Your task to perform on an android device: Open settings on Google Maps Image 0: 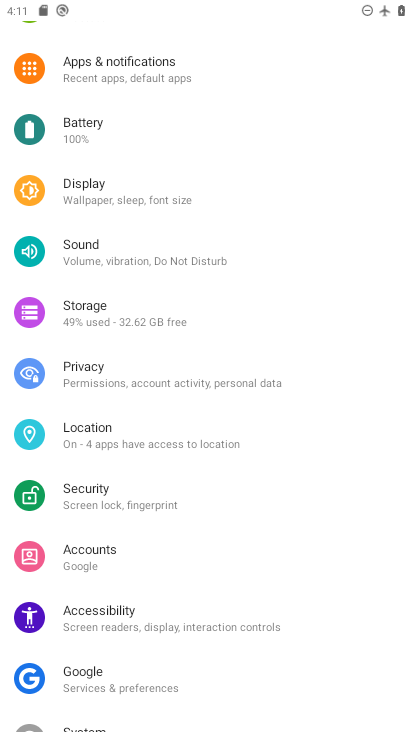
Step 0: press home button
Your task to perform on an android device: Open settings on Google Maps Image 1: 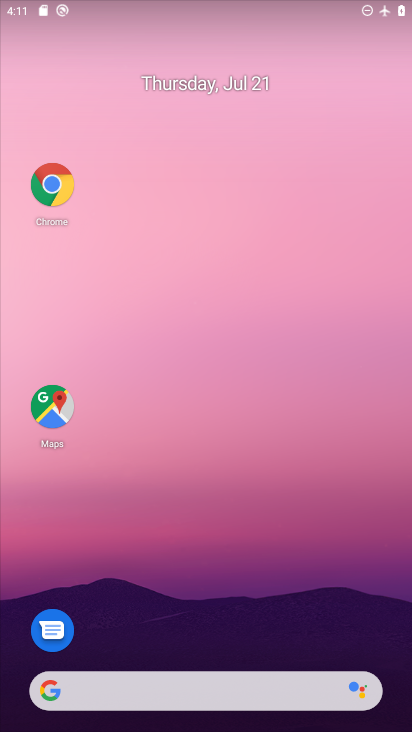
Step 1: drag from (212, 655) to (147, 132)
Your task to perform on an android device: Open settings on Google Maps Image 2: 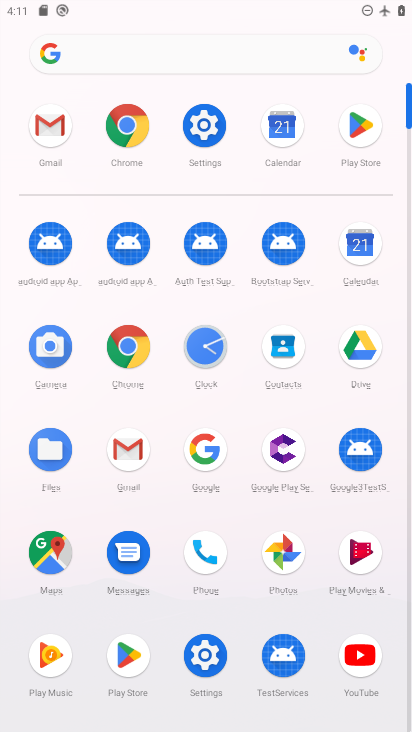
Step 2: click (59, 532)
Your task to perform on an android device: Open settings on Google Maps Image 3: 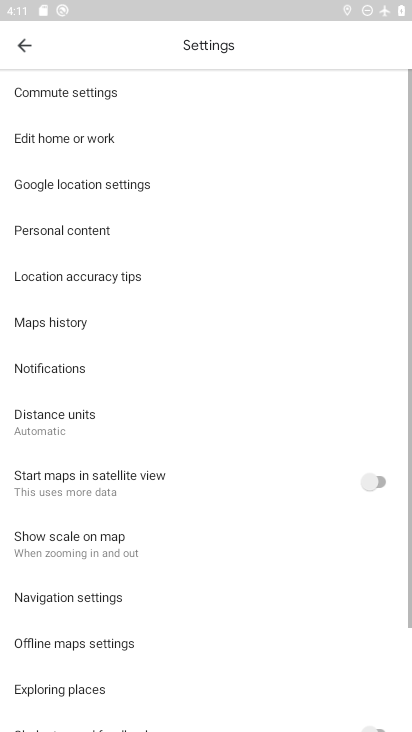
Step 3: click (22, 49)
Your task to perform on an android device: Open settings on Google Maps Image 4: 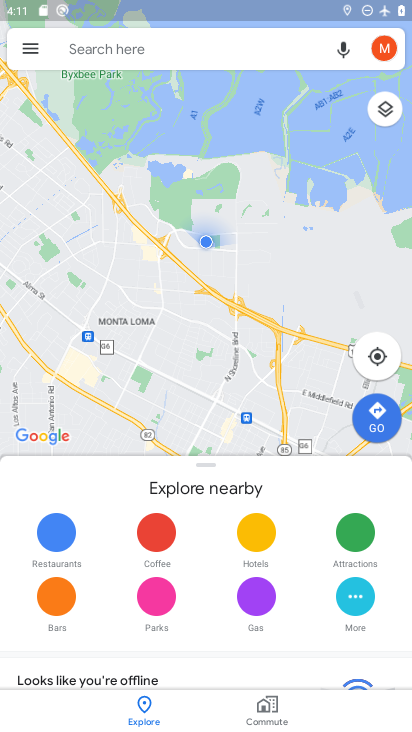
Step 4: click (22, 48)
Your task to perform on an android device: Open settings on Google Maps Image 5: 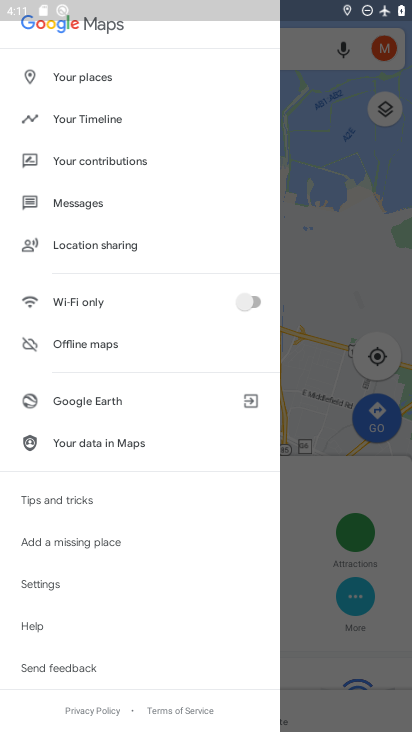
Step 5: click (77, 577)
Your task to perform on an android device: Open settings on Google Maps Image 6: 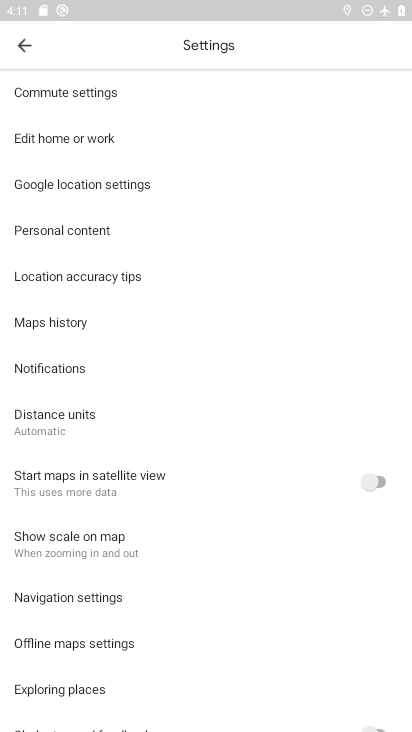
Step 6: task complete